Your task to perform on an android device: turn on airplane mode Image 0: 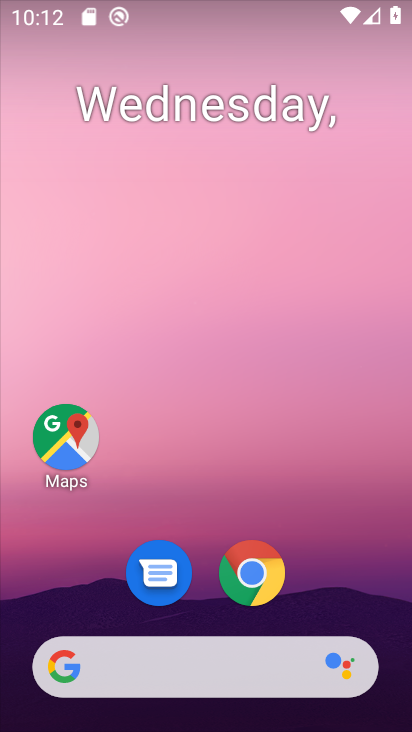
Step 0: drag from (266, 625) to (282, 23)
Your task to perform on an android device: turn on airplane mode Image 1: 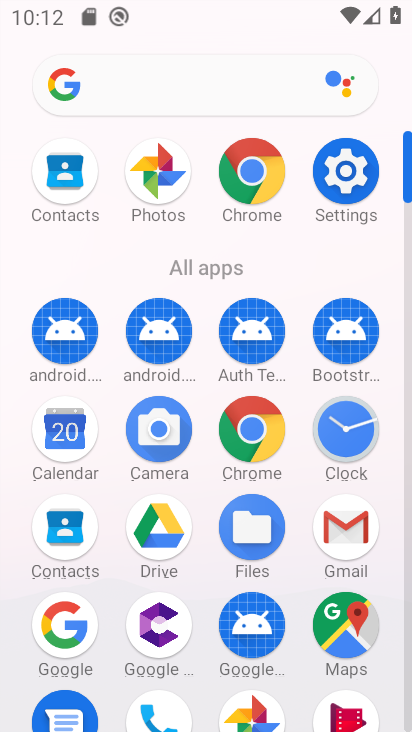
Step 1: drag from (209, 609) to (260, 82)
Your task to perform on an android device: turn on airplane mode Image 2: 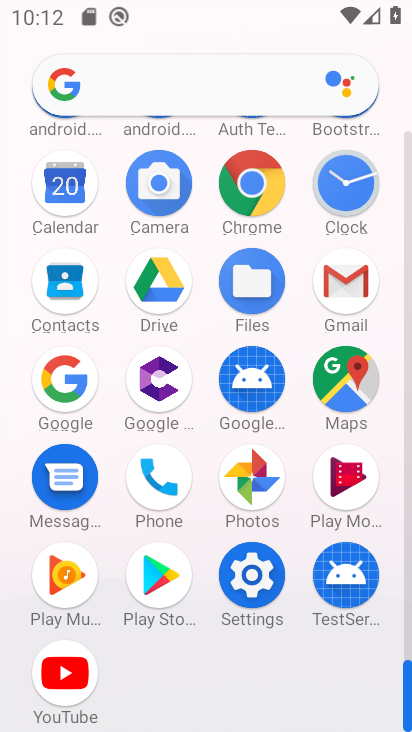
Step 2: click (251, 569)
Your task to perform on an android device: turn on airplane mode Image 3: 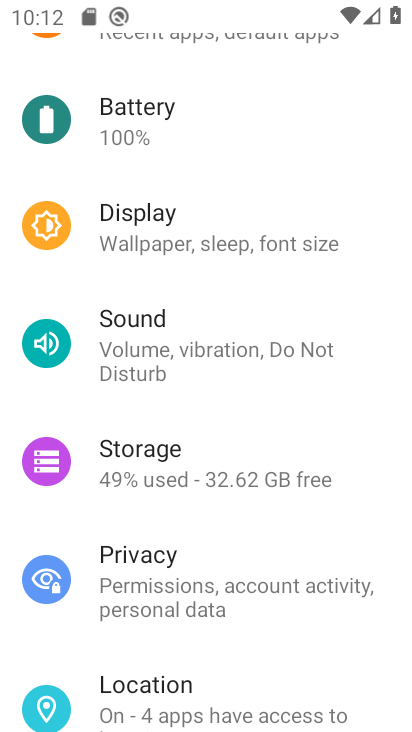
Step 3: drag from (192, 154) to (336, 728)
Your task to perform on an android device: turn on airplane mode Image 4: 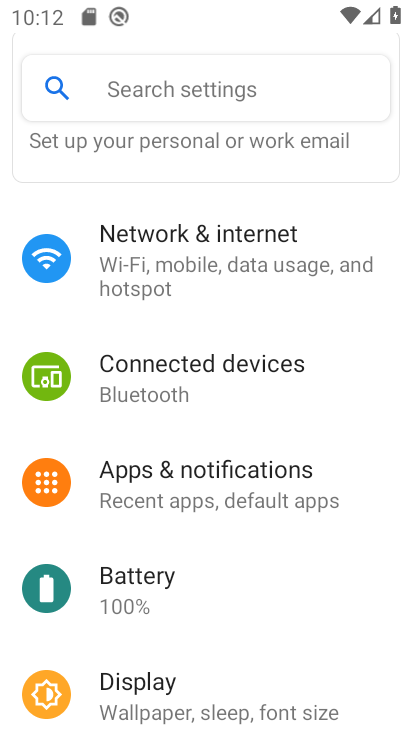
Step 4: click (266, 252)
Your task to perform on an android device: turn on airplane mode Image 5: 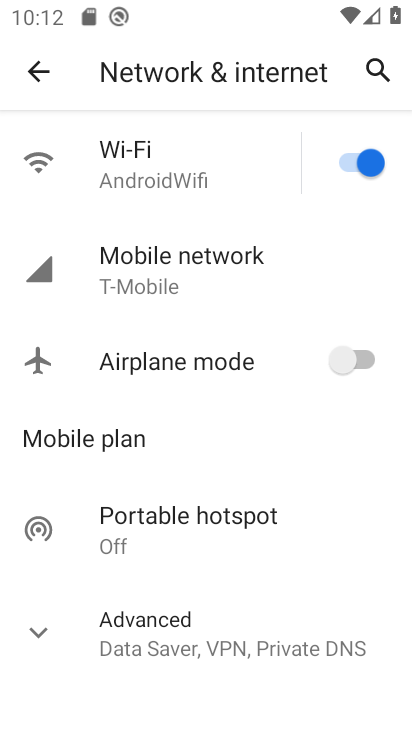
Step 5: click (358, 358)
Your task to perform on an android device: turn on airplane mode Image 6: 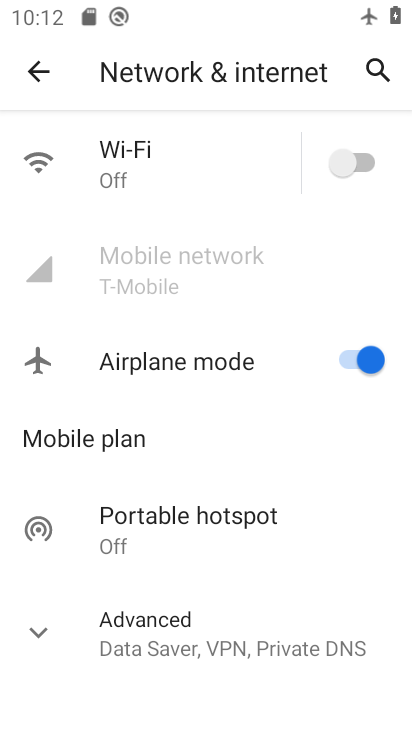
Step 6: task complete